Your task to perform on an android device: Open my contact list Image 0: 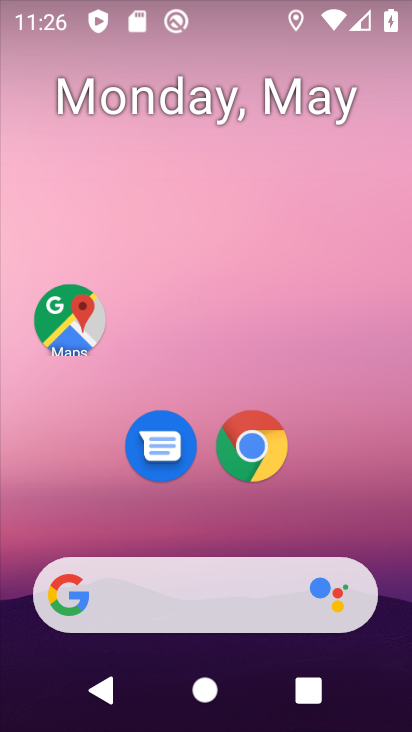
Step 0: drag from (330, 503) to (178, 8)
Your task to perform on an android device: Open my contact list Image 1: 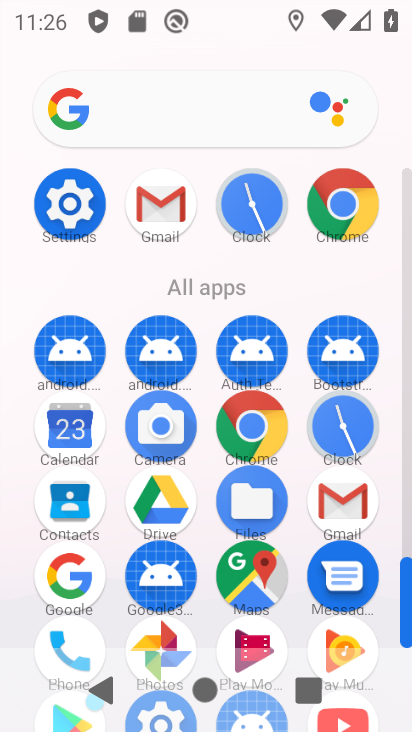
Step 1: click (72, 494)
Your task to perform on an android device: Open my contact list Image 2: 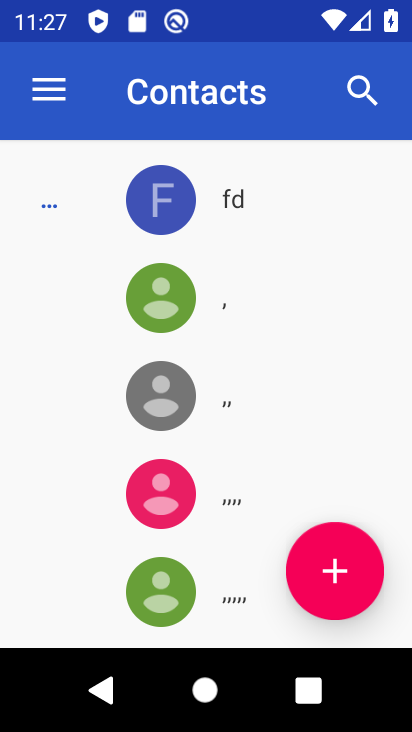
Step 2: task complete